Your task to perform on an android device: Open Chrome and go to settings Image 0: 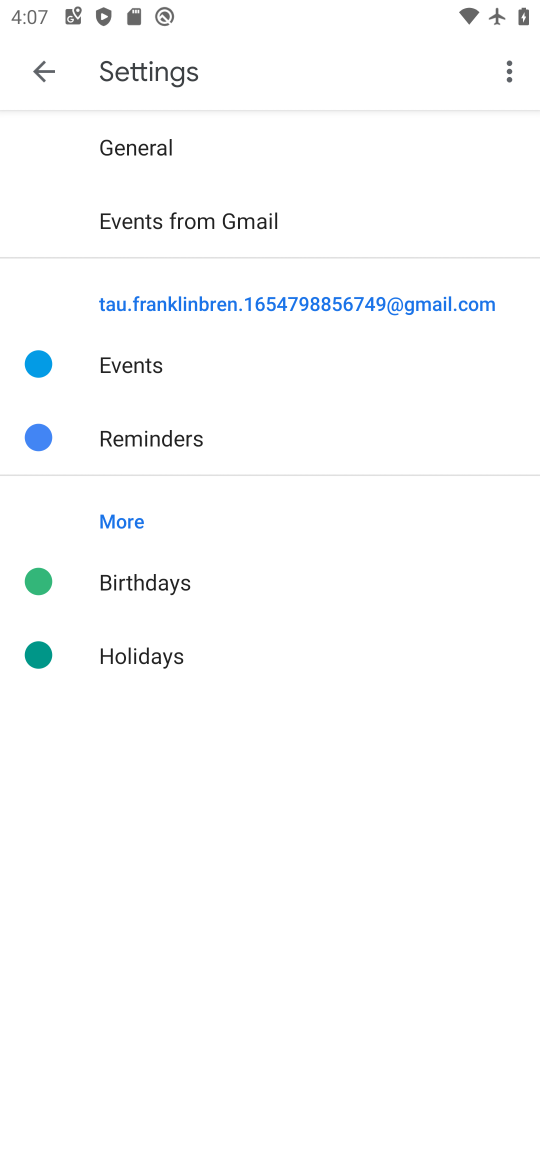
Step 0: press home button
Your task to perform on an android device: Open Chrome and go to settings Image 1: 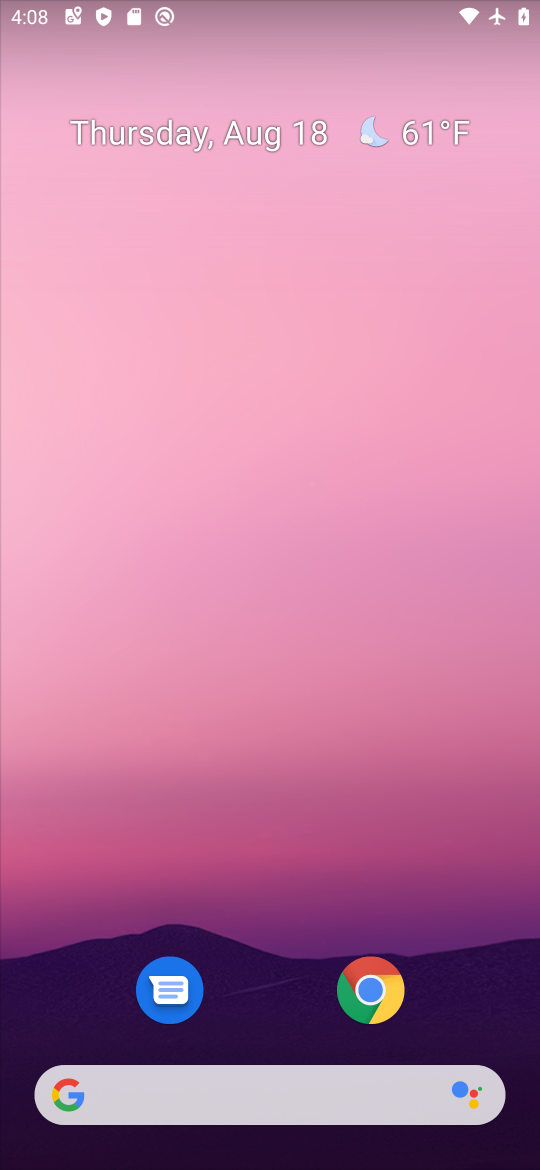
Step 1: drag from (237, 996) to (277, 121)
Your task to perform on an android device: Open Chrome and go to settings Image 2: 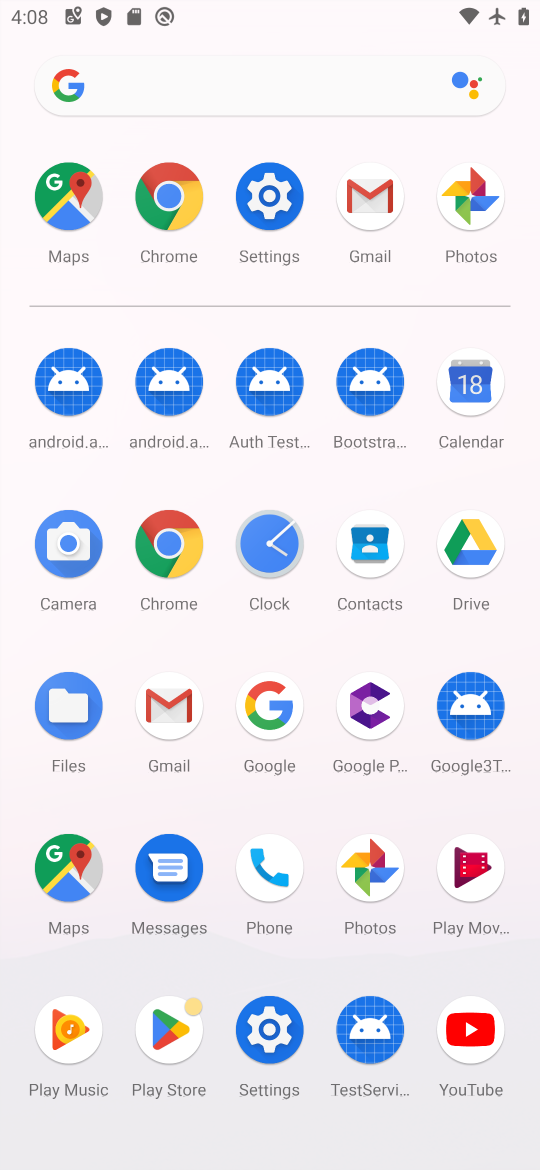
Step 2: click (162, 552)
Your task to perform on an android device: Open Chrome and go to settings Image 3: 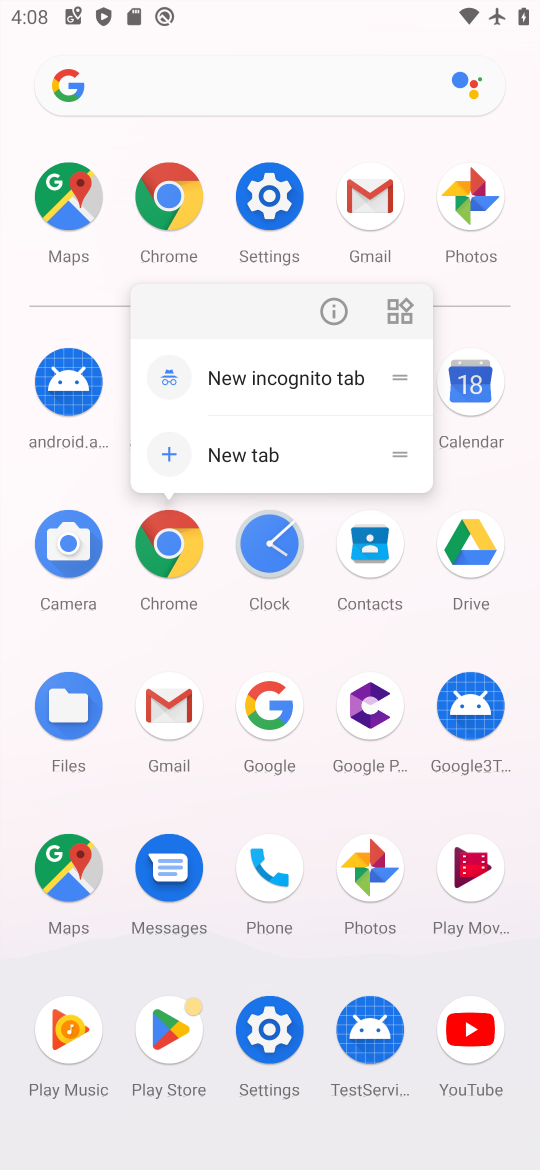
Step 3: click (162, 552)
Your task to perform on an android device: Open Chrome and go to settings Image 4: 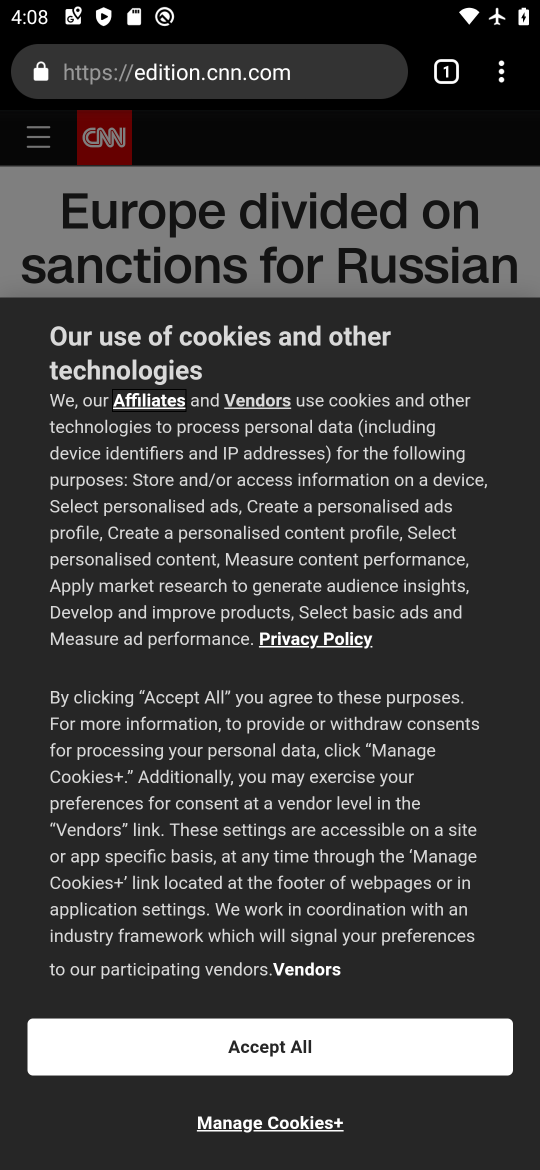
Step 4: task complete